Your task to perform on an android device: Go to Google maps Image 0: 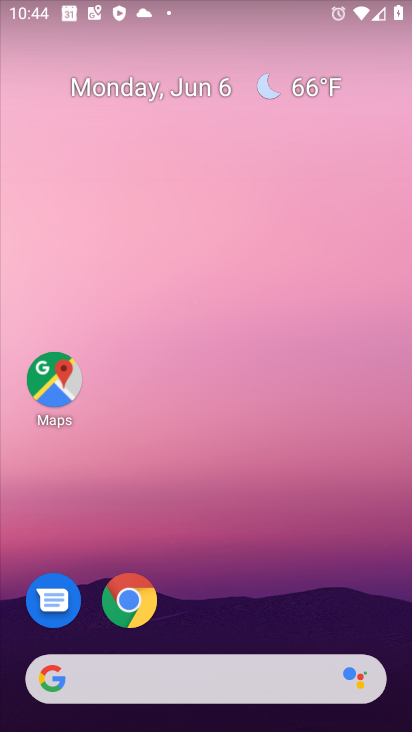
Step 0: click (51, 388)
Your task to perform on an android device: Go to Google maps Image 1: 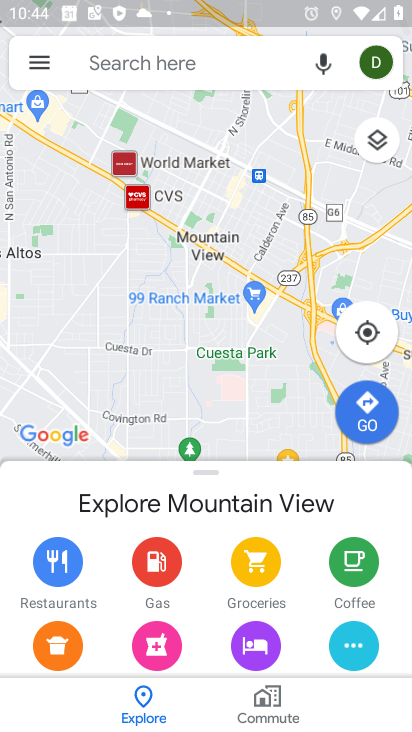
Step 1: task complete